Your task to perform on an android device: Open the contacts Image 0: 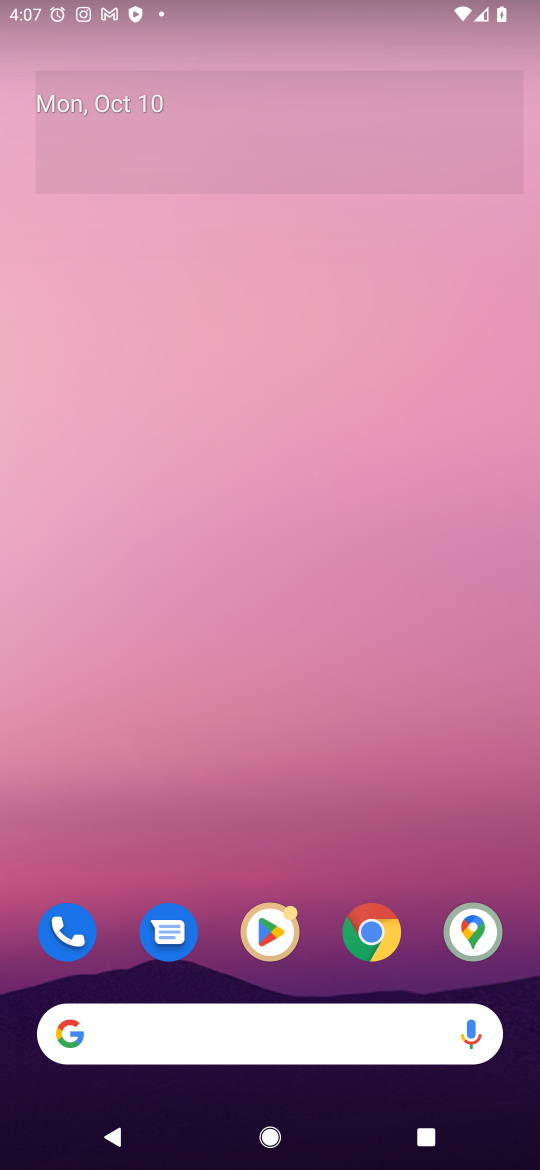
Step 0: press home button
Your task to perform on an android device: Open the contacts Image 1: 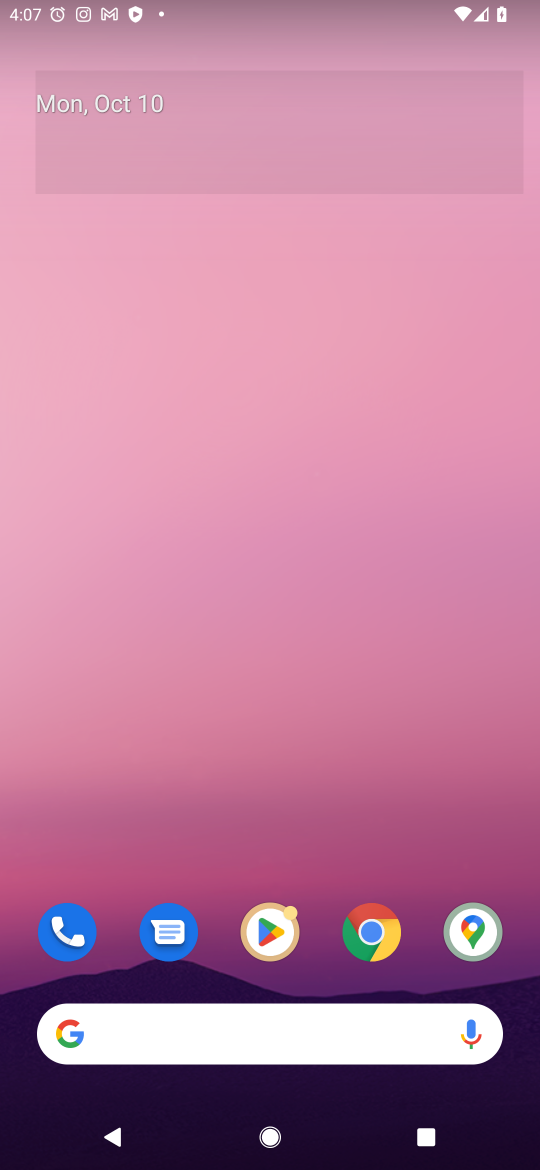
Step 1: drag from (422, 840) to (438, 174)
Your task to perform on an android device: Open the contacts Image 2: 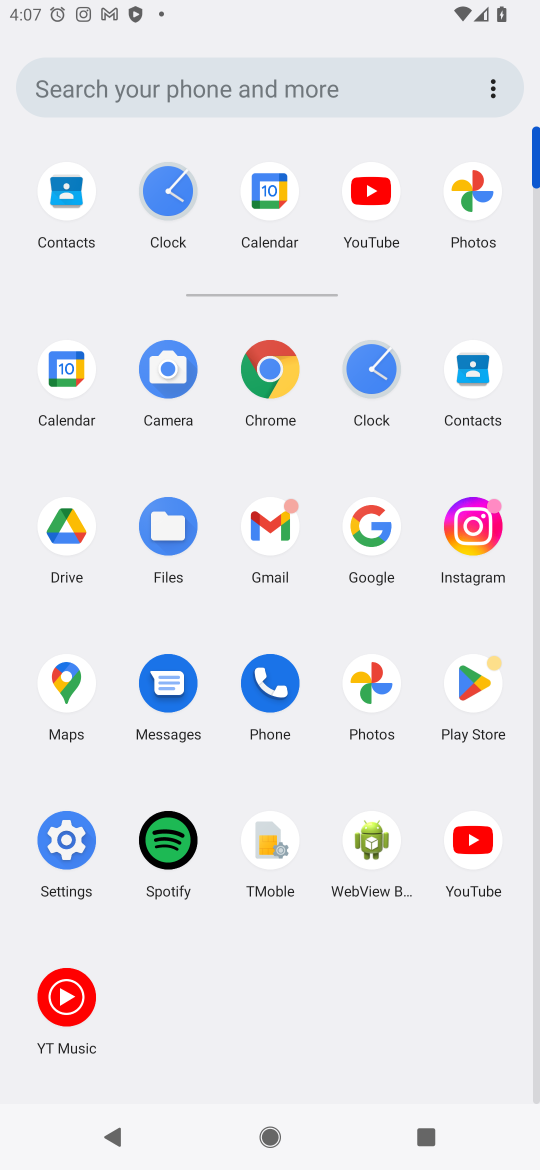
Step 2: click (483, 383)
Your task to perform on an android device: Open the contacts Image 3: 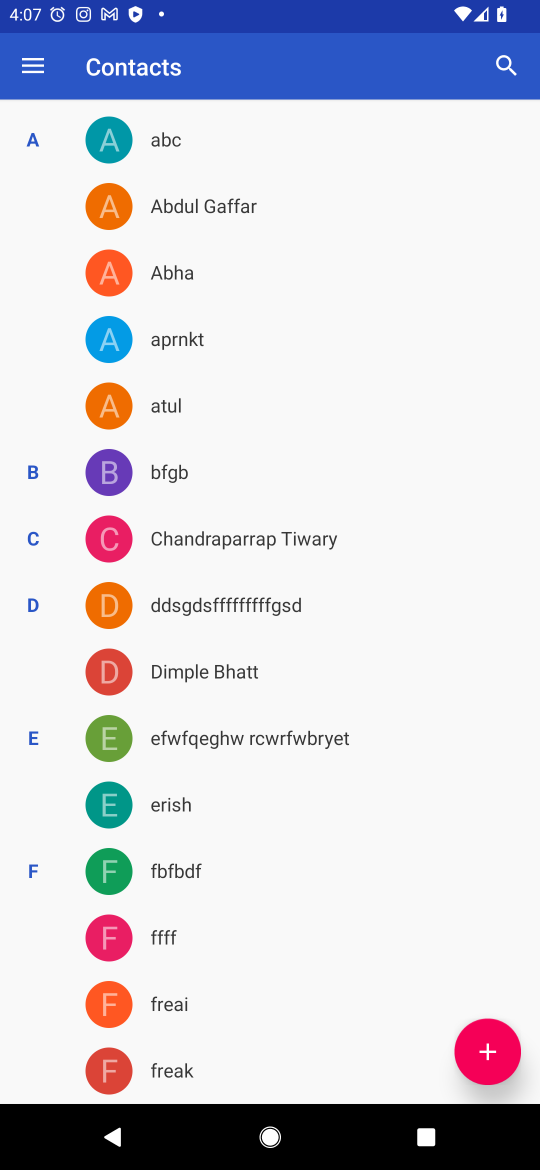
Step 3: task complete